Your task to perform on an android device: Is it going to rain this weekend? Image 0: 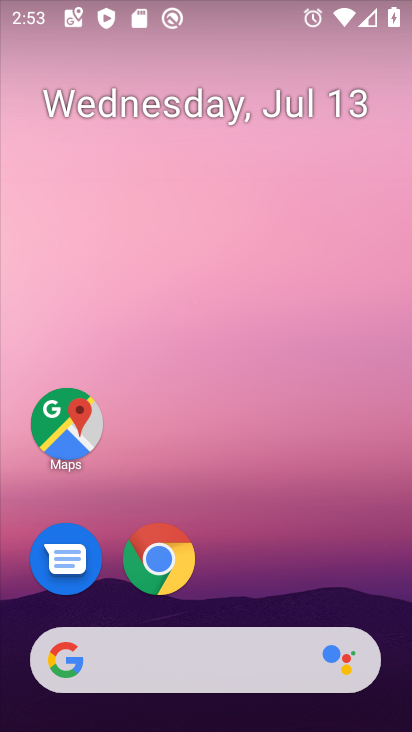
Step 0: click (261, 658)
Your task to perform on an android device: Is it going to rain this weekend? Image 1: 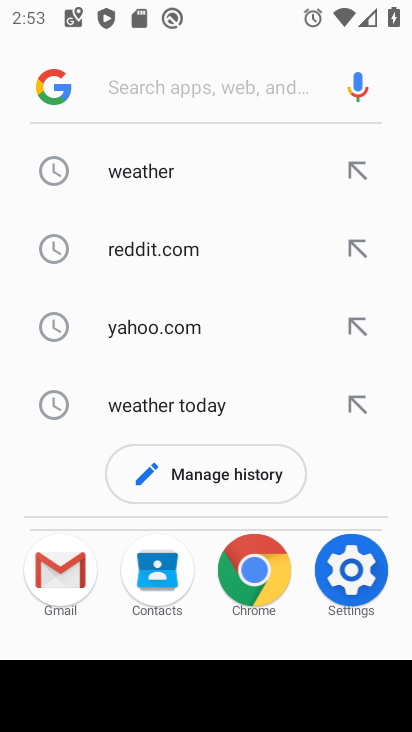
Step 1: click (158, 174)
Your task to perform on an android device: Is it going to rain this weekend? Image 2: 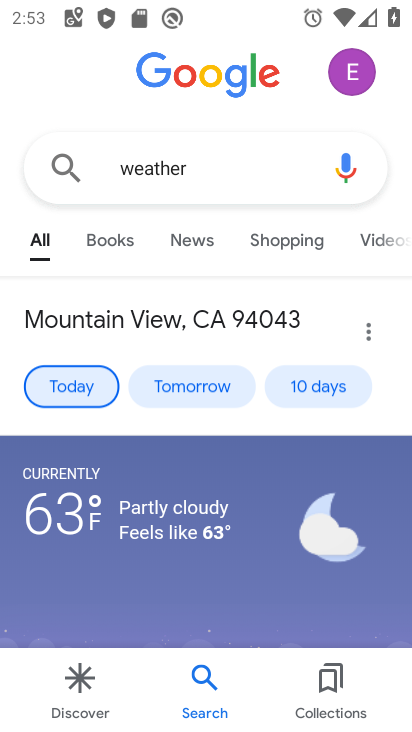
Step 2: click (314, 387)
Your task to perform on an android device: Is it going to rain this weekend? Image 3: 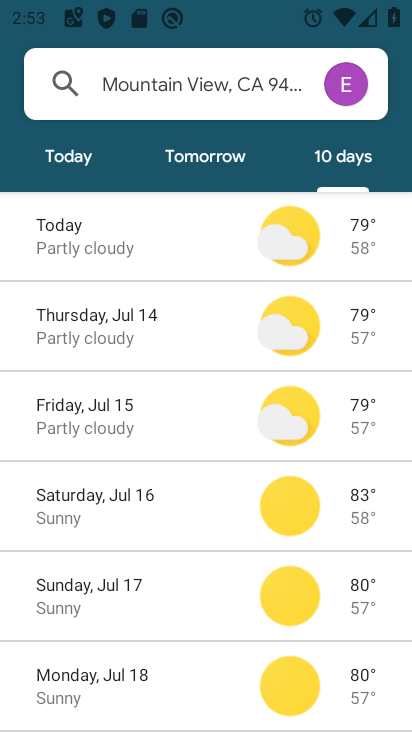
Step 3: drag from (180, 564) to (186, 357)
Your task to perform on an android device: Is it going to rain this weekend? Image 4: 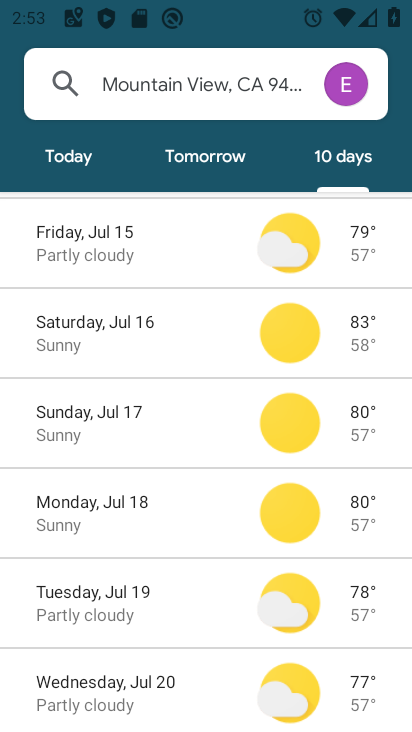
Step 4: click (163, 337)
Your task to perform on an android device: Is it going to rain this weekend? Image 5: 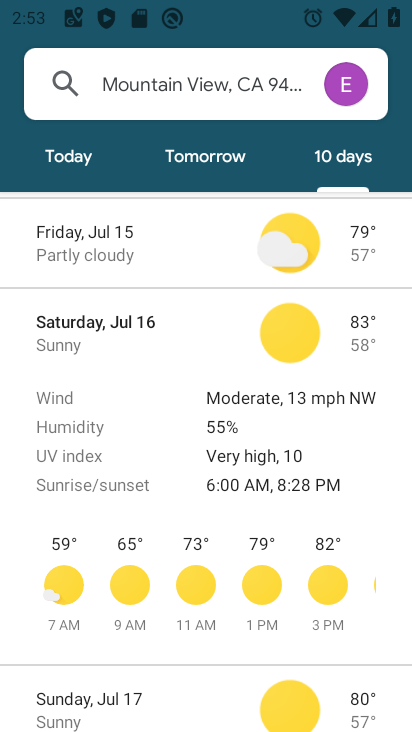
Step 5: task complete